Your task to perform on an android device: Open Chrome and go to settings Image 0: 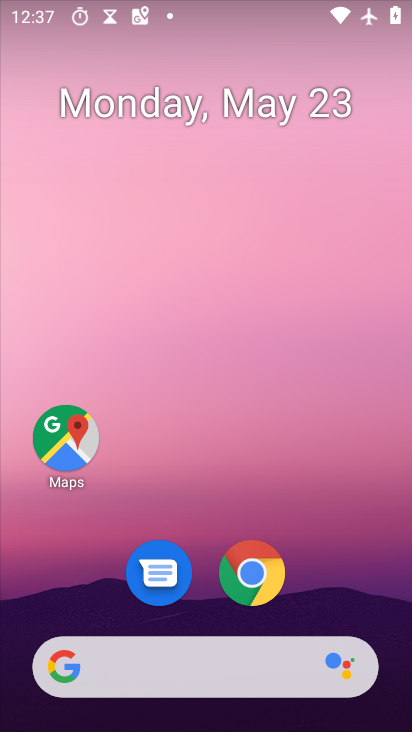
Step 0: press home button
Your task to perform on an android device: Open Chrome and go to settings Image 1: 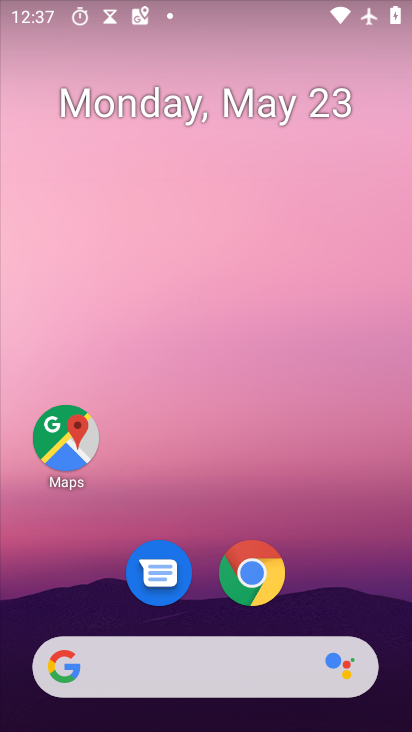
Step 1: click (263, 580)
Your task to perform on an android device: Open Chrome and go to settings Image 2: 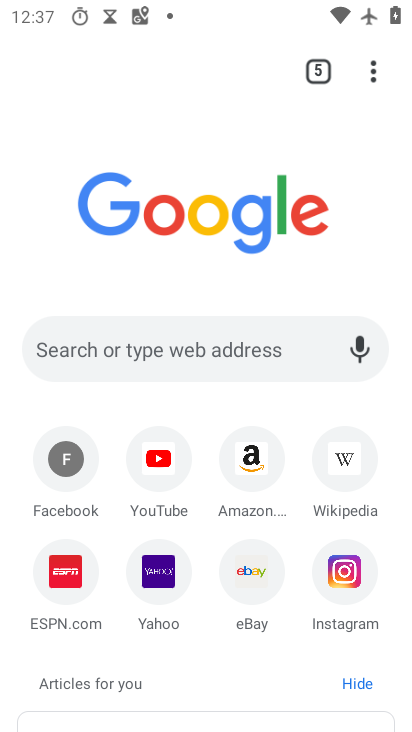
Step 2: task complete